Your task to perform on an android device: What's the weather? Image 0: 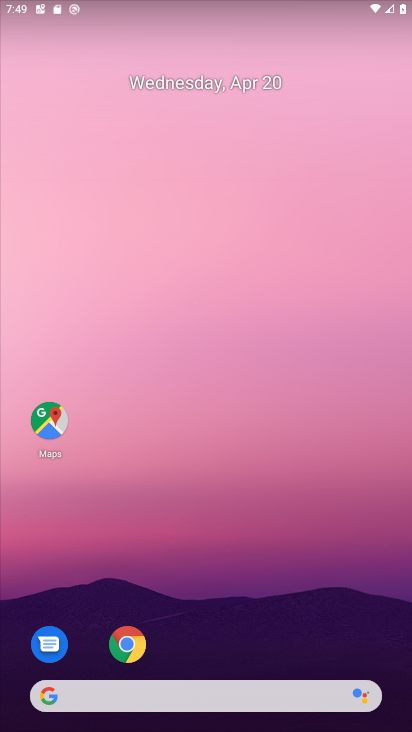
Step 0: click (291, 584)
Your task to perform on an android device: What's the weather? Image 1: 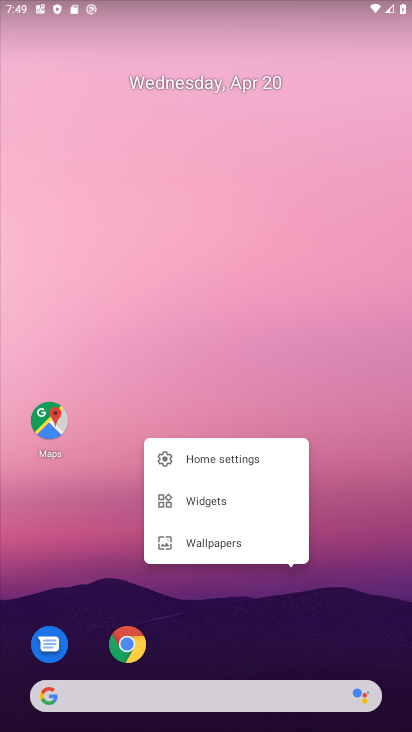
Step 1: click (368, 474)
Your task to perform on an android device: What's the weather? Image 2: 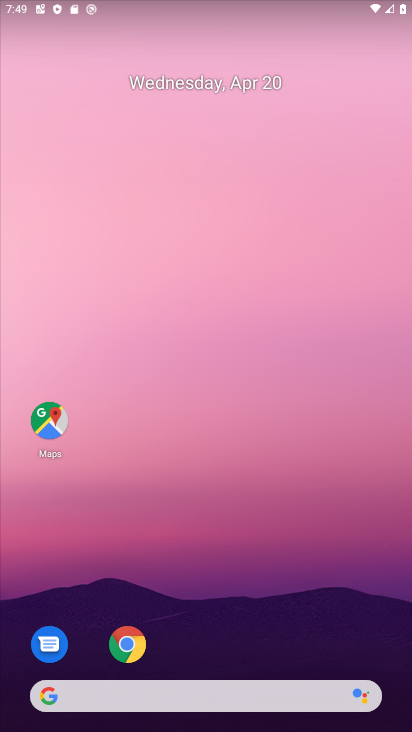
Step 2: click (204, 691)
Your task to perform on an android device: What's the weather? Image 3: 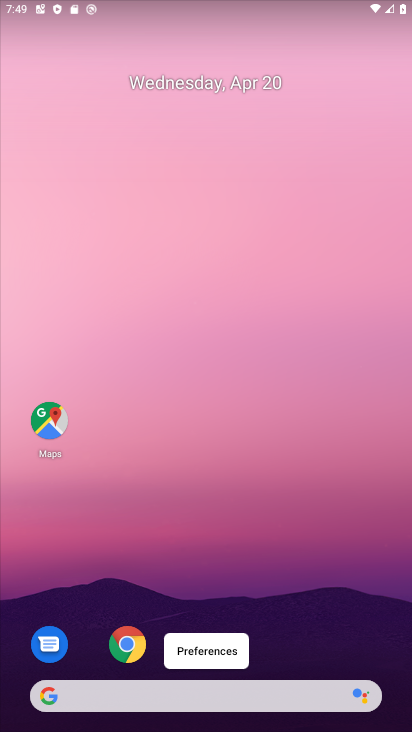
Step 3: click (204, 691)
Your task to perform on an android device: What's the weather? Image 4: 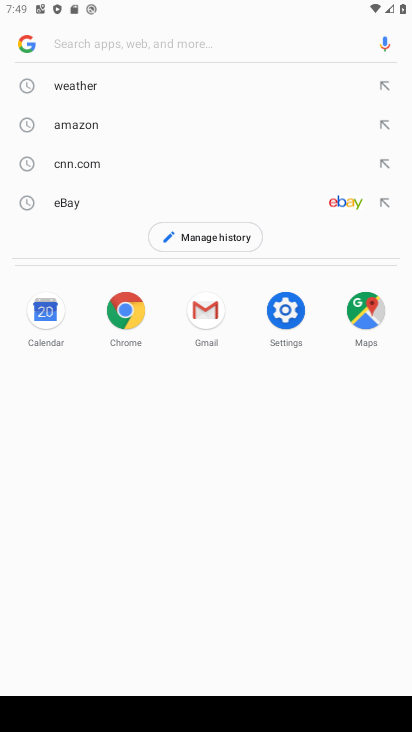
Step 4: click (107, 95)
Your task to perform on an android device: What's the weather? Image 5: 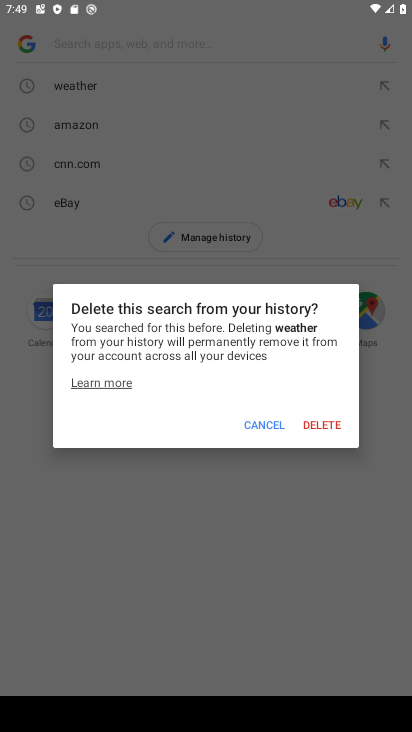
Step 5: click (275, 429)
Your task to perform on an android device: What's the weather? Image 6: 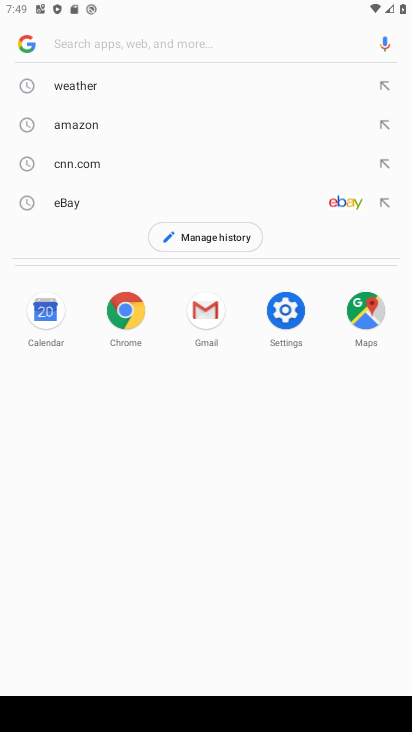
Step 6: click (136, 92)
Your task to perform on an android device: What's the weather? Image 7: 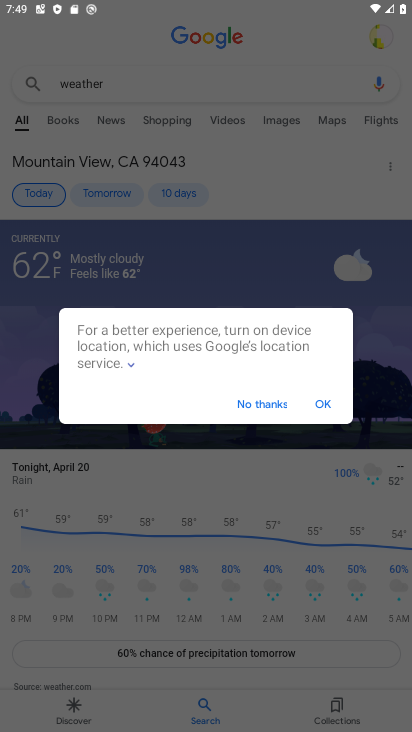
Step 7: click (270, 418)
Your task to perform on an android device: What's the weather? Image 8: 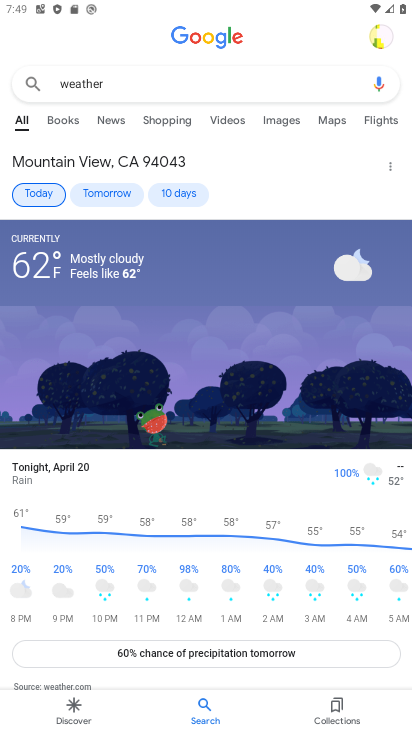
Step 8: task complete